Your task to perform on an android device: Open internet settings Image 0: 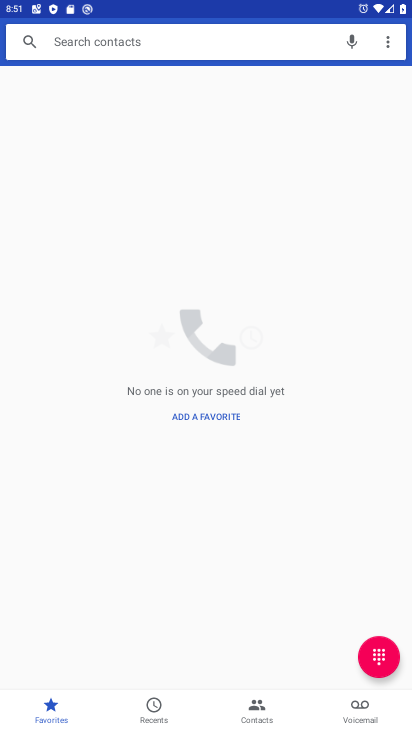
Step 0: press home button
Your task to perform on an android device: Open internet settings Image 1: 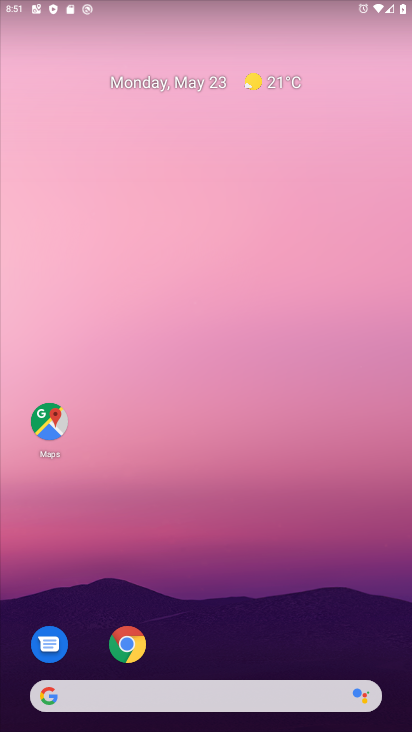
Step 1: drag from (162, 713) to (186, 82)
Your task to perform on an android device: Open internet settings Image 2: 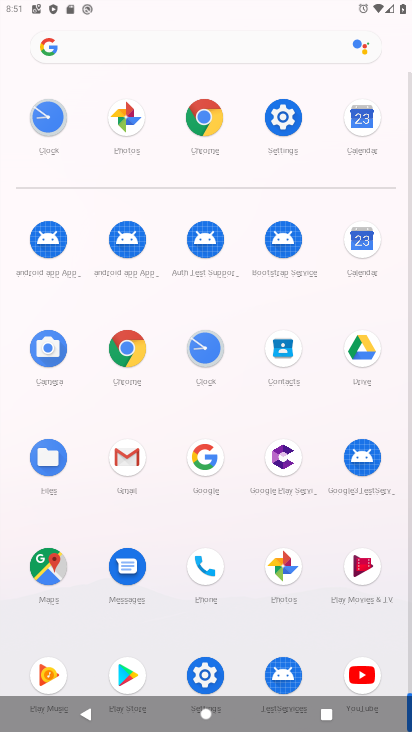
Step 2: click (288, 106)
Your task to perform on an android device: Open internet settings Image 3: 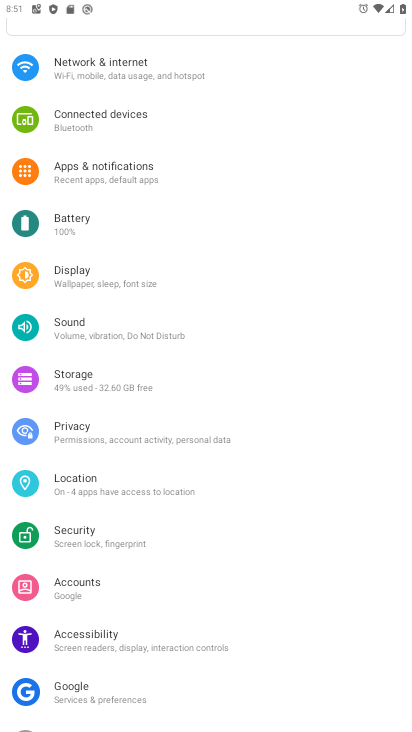
Step 3: drag from (268, 122) to (284, 547)
Your task to perform on an android device: Open internet settings Image 4: 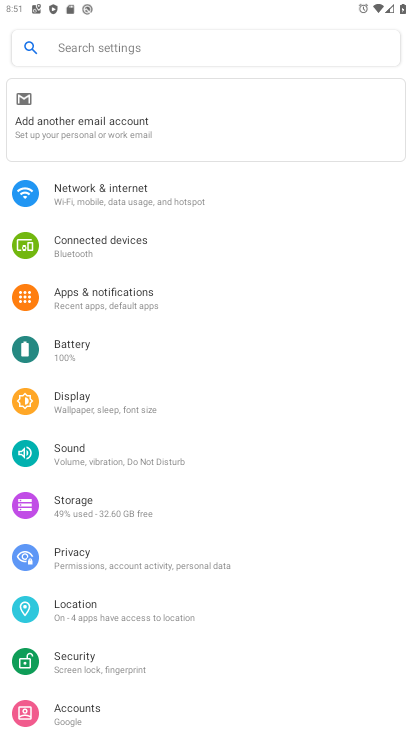
Step 4: click (174, 182)
Your task to perform on an android device: Open internet settings Image 5: 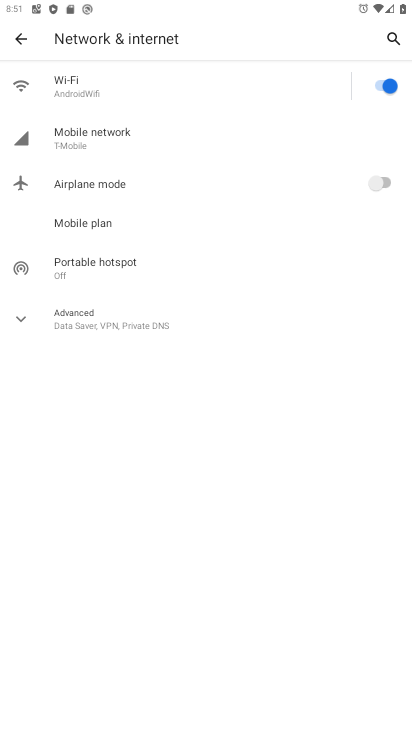
Step 5: task complete